Your task to perform on an android device: add a label to a message in the gmail app Image 0: 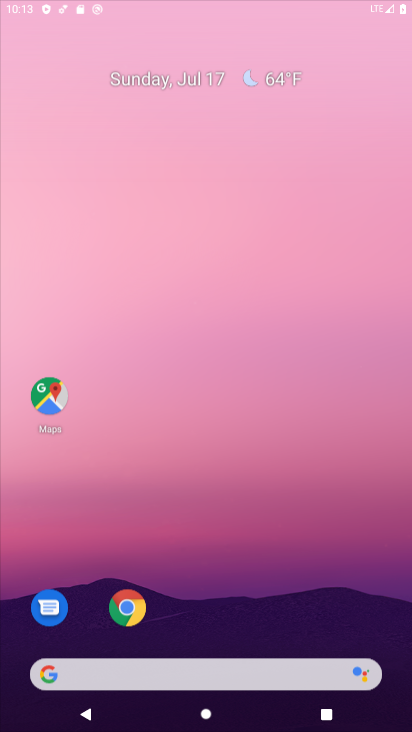
Step 0: click (116, 69)
Your task to perform on an android device: add a label to a message in the gmail app Image 1: 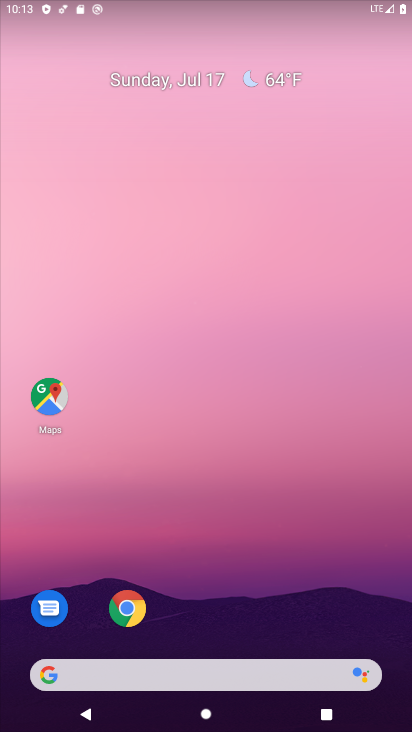
Step 1: drag from (348, 660) to (199, 70)
Your task to perform on an android device: add a label to a message in the gmail app Image 2: 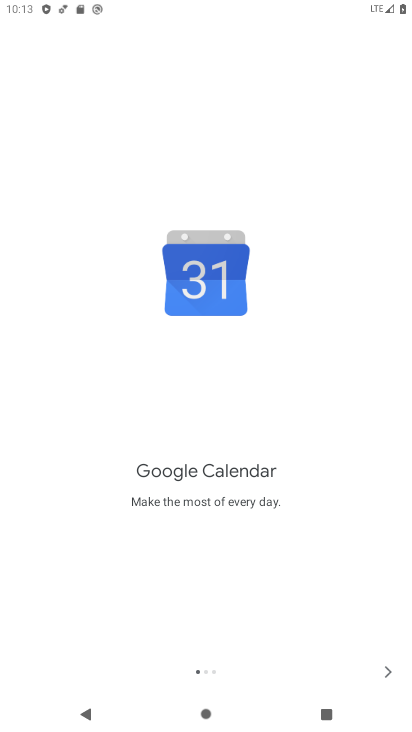
Step 2: press home button
Your task to perform on an android device: add a label to a message in the gmail app Image 3: 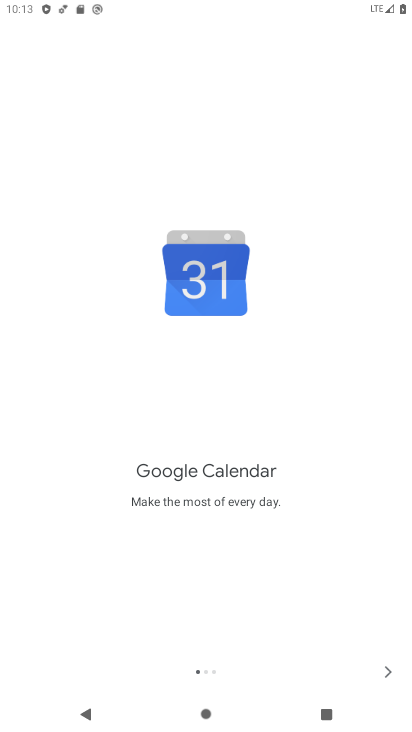
Step 3: drag from (391, 687) to (238, 148)
Your task to perform on an android device: add a label to a message in the gmail app Image 4: 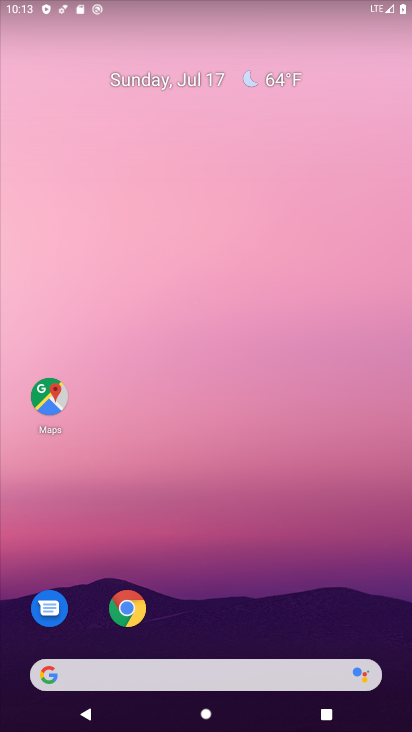
Step 4: drag from (343, 605) to (157, 20)
Your task to perform on an android device: add a label to a message in the gmail app Image 5: 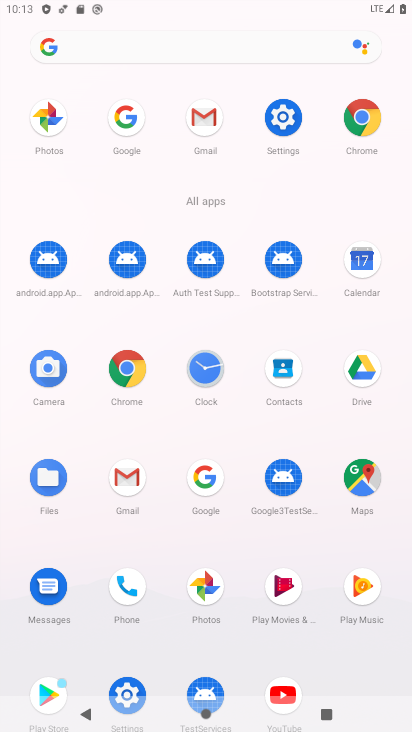
Step 5: click (120, 474)
Your task to perform on an android device: add a label to a message in the gmail app Image 6: 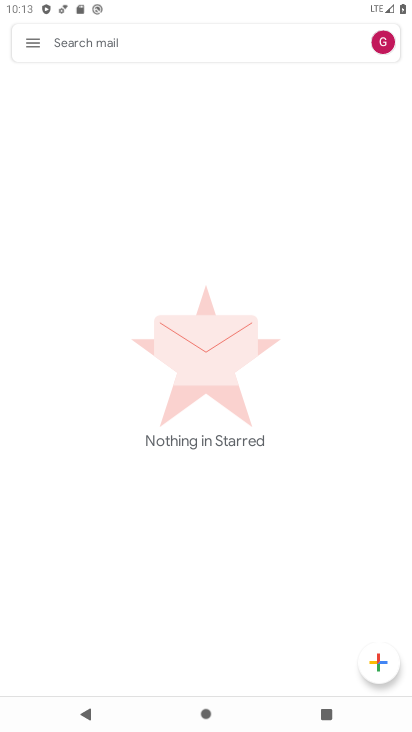
Step 6: click (29, 41)
Your task to perform on an android device: add a label to a message in the gmail app Image 7: 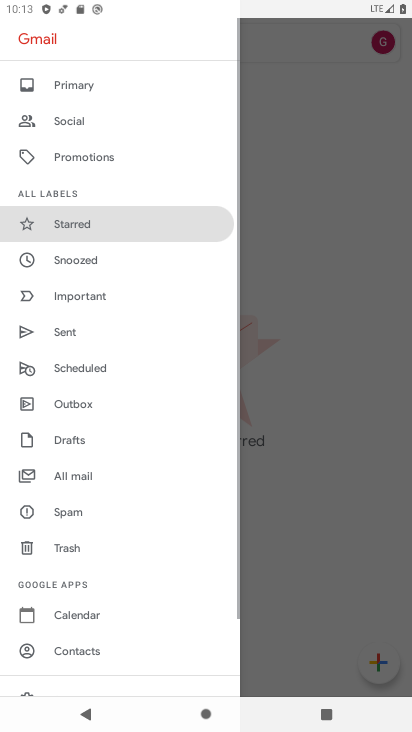
Step 7: click (72, 84)
Your task to perform on an android device: add a label to a message in the gmail app Image 8: 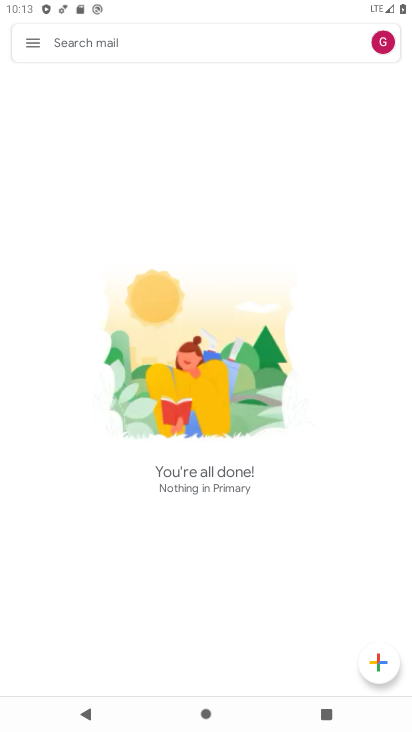
Step 8: task complete